Your task to perform on an android device: Go to Google Image 0: 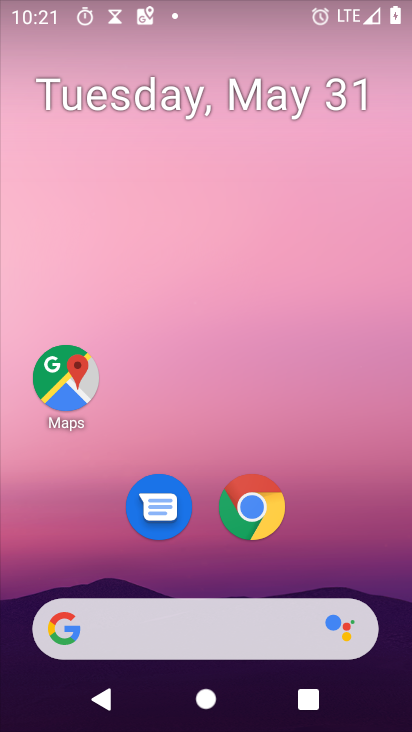
Step 0: click (135, 638)
Your task to perform on an android device: Go to Google Image 1: 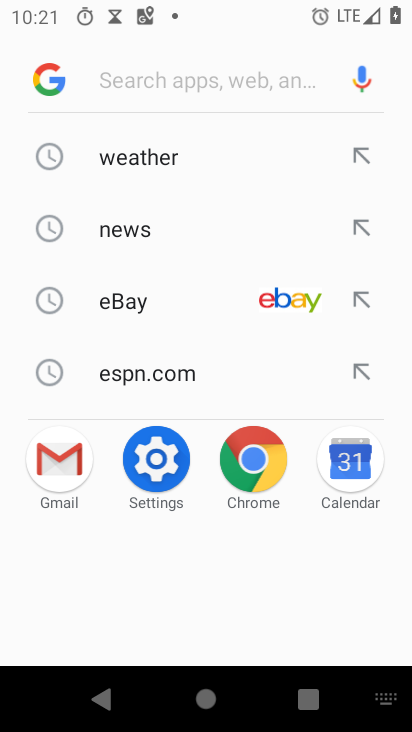
Step 1: click (48, 87)
Your task to perform on an android device: Go to Google Image 2: 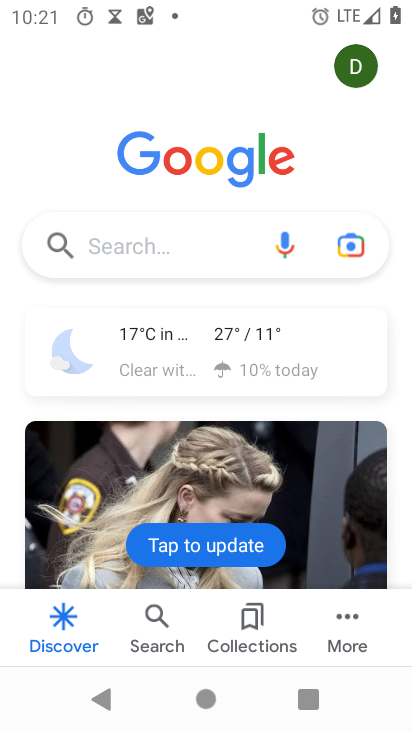
Step 2: task complete